Your task to perform on an android device: Open the Play Movies app and select the watchlist tab. Image 0: 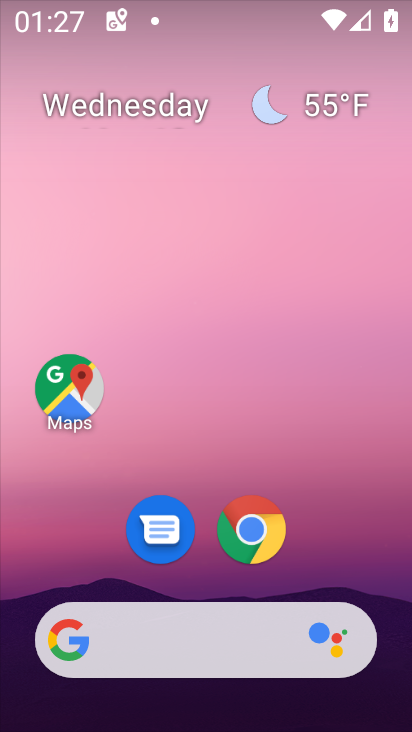
Step 0: drag from (223, 724) to (225, 172)
Your task to perform on an android device: Open the Play Movies app and select the watchlist tab. Image 1: 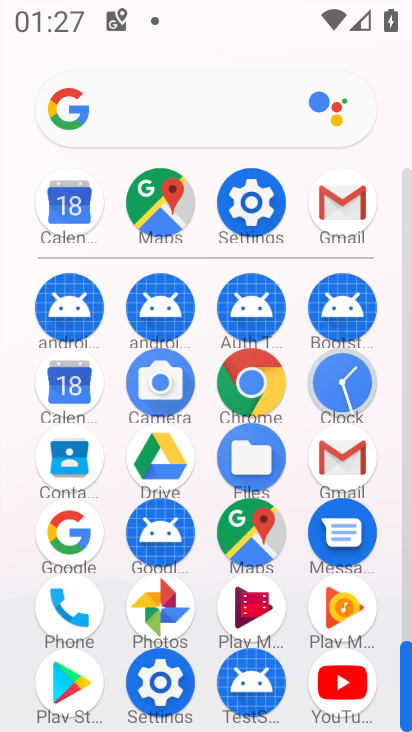
Step 1: click (266, 606)
Your task to perform on an android device: Open the Play Movies app and select the watchlist tab. Image 2: 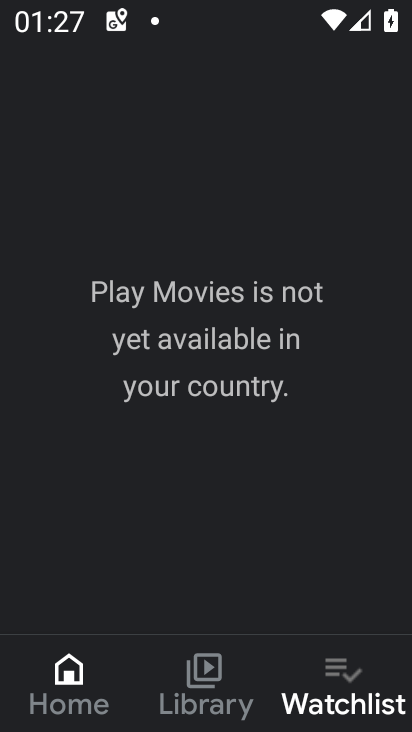
Step 2: task complete